Your task to perform on an android device: toggle notification dots Image 0: 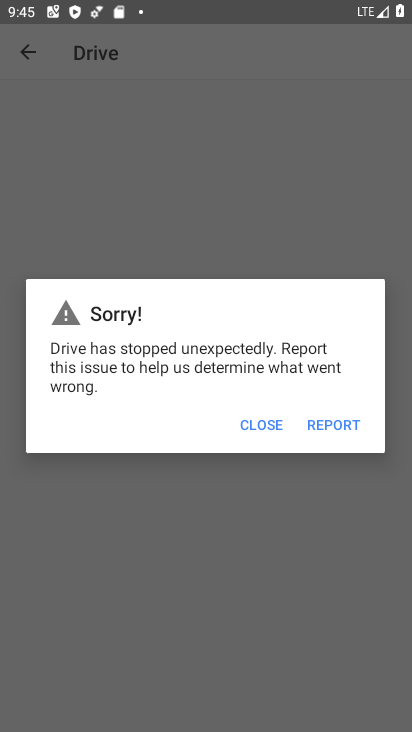
Step 0: press home button
Your task to perform on an android device: toggle notification dots Image 1: 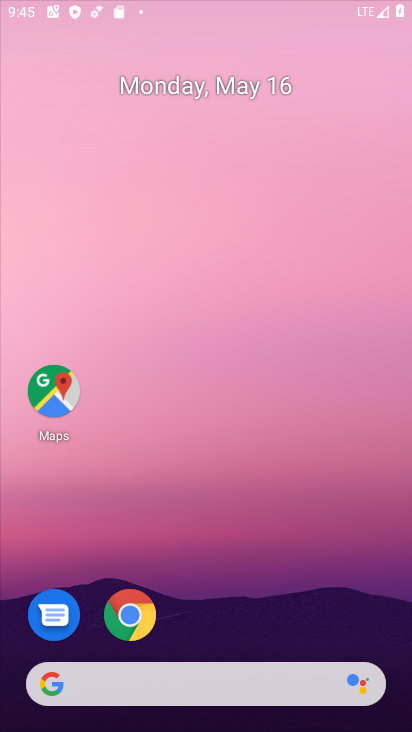
Step 1: drag from (260, 684) to (235, 207)
Your task to perform on an android device: toggle notification dots Image 2: 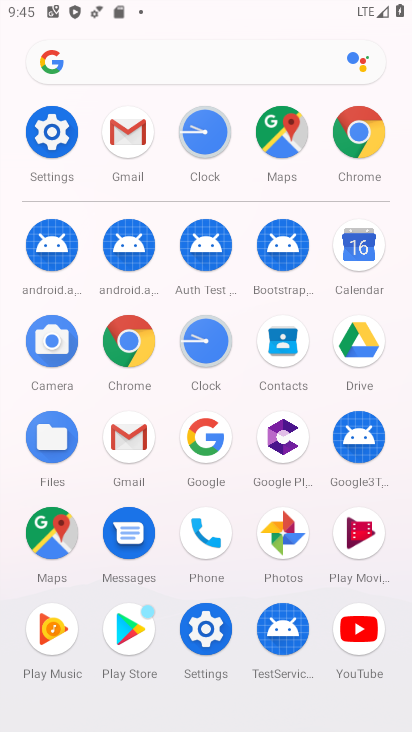
Step 2: click (61, 140)
Your task to perform on an android device: toggle notification dots Image 3: 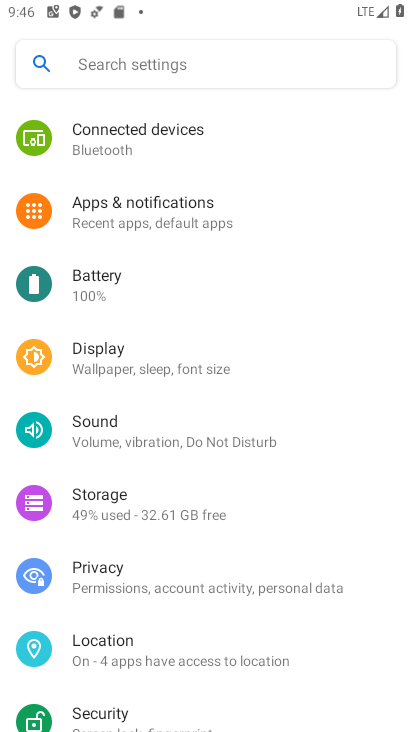
Step 3: drag from (165, 617) to (169, 420)
Your task to perform on an android device: toggle notification dots Image 4: 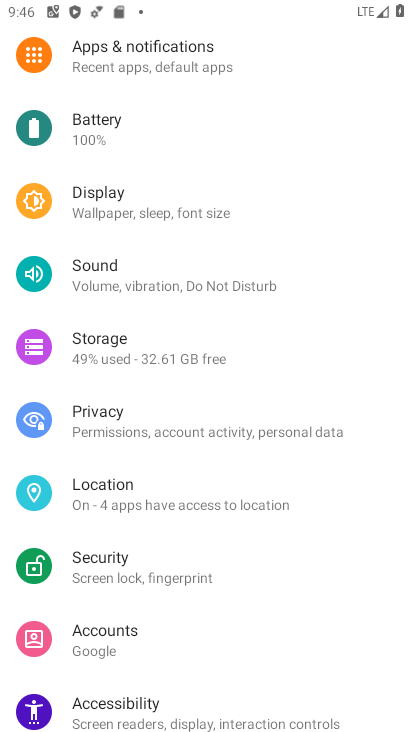
Step 4: click (174, 71)
Your task to perform on an android device: toggle notification dots Image 5: 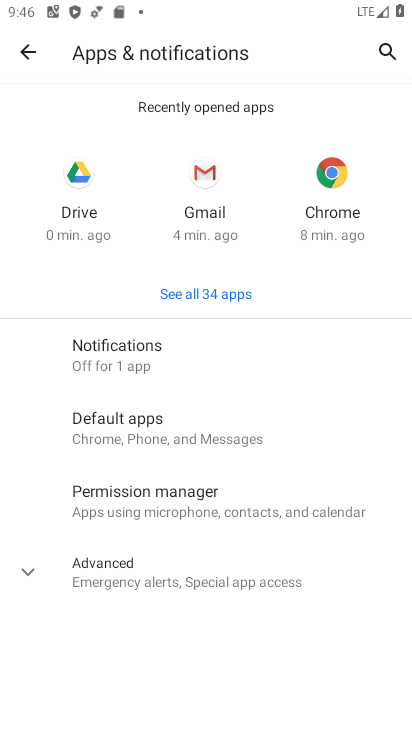
Step 5: click (170, 575)
Your task to perform on an android device: toggle notification dots Image 6: 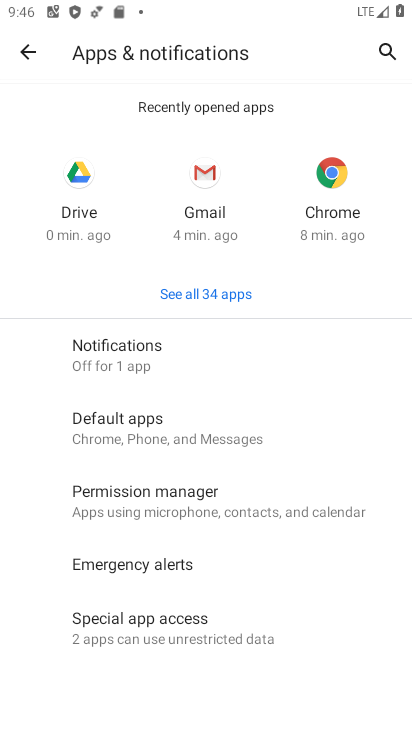
Step 6: click (131, 348)
Your task to perform on an android device: toggle notification dots Image 7: 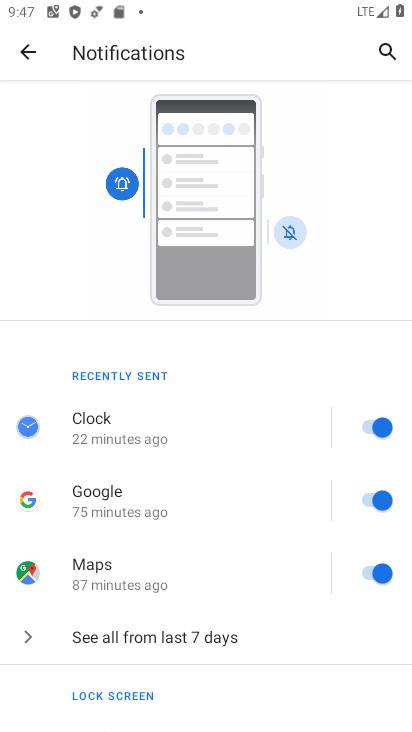
Step 7: drag from (148, 554) to (167, 233)
Your task to perform on an android device: toggle notification dots Image 8: 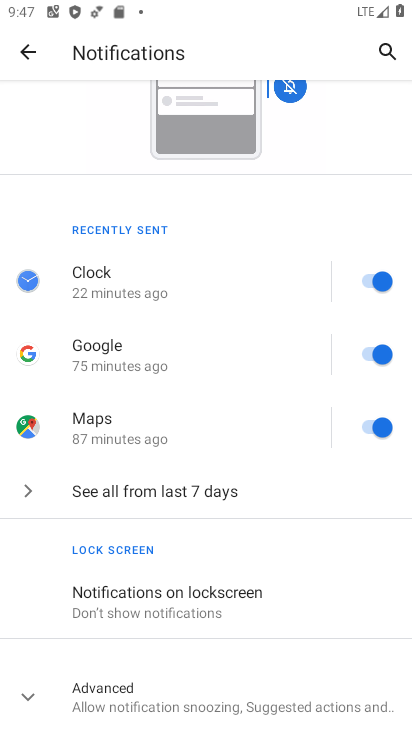
Step 8: click (126, 690)
Your task to perform on an android device: toggle notification dots Image 9: 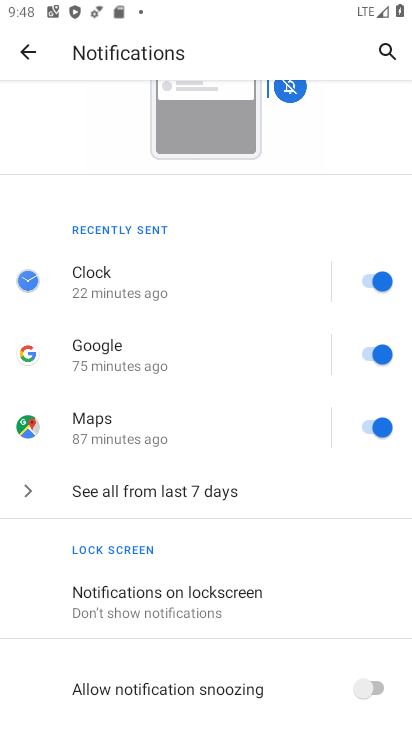
Step 9: drag from (123, 494) to (123, 284)
Your task to perform on an android device: toggle notification dots Image 10: 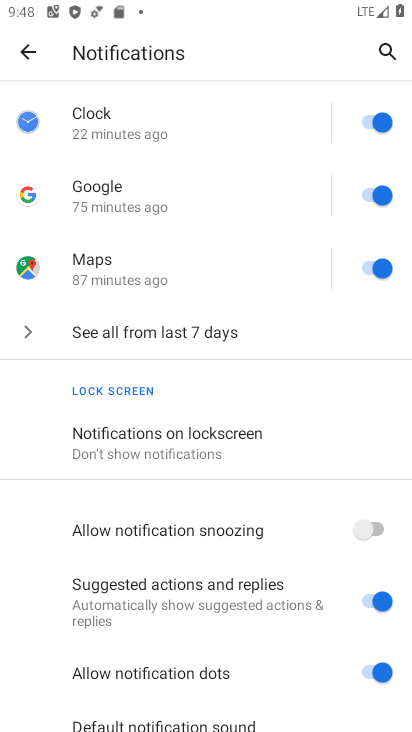
Step 10: drag from (127, 626) to (155, 317)
Your task to perform on an android device: toggle notification dots Image 11: 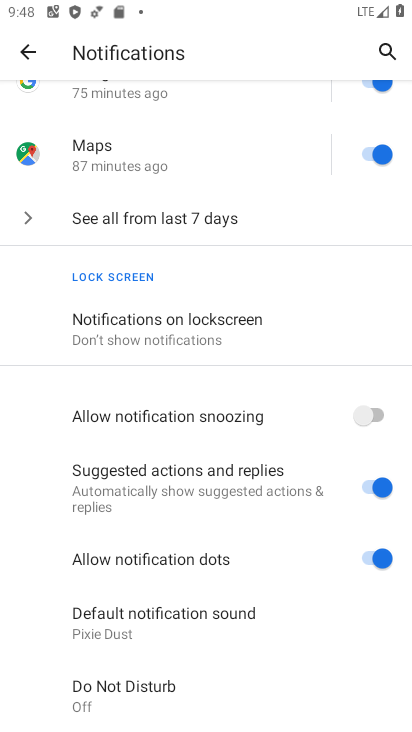
Step 11: click (332, 563)
Your task to perform on an android device: toggle notification dots Image 12: 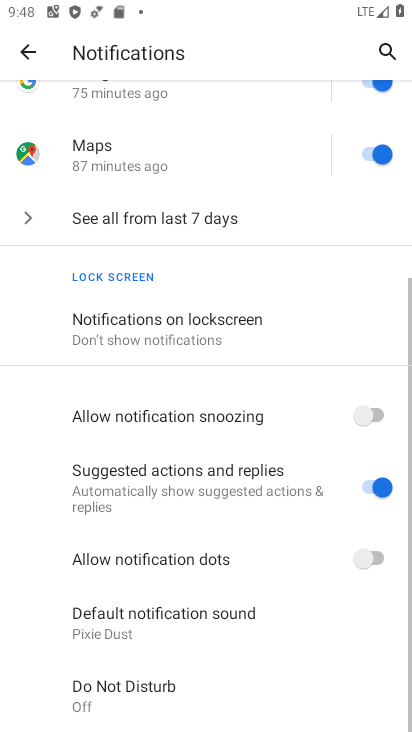
Step 12: task complete